Your task to perform on an android device: Play the last video I watched on Youtube Image 0: 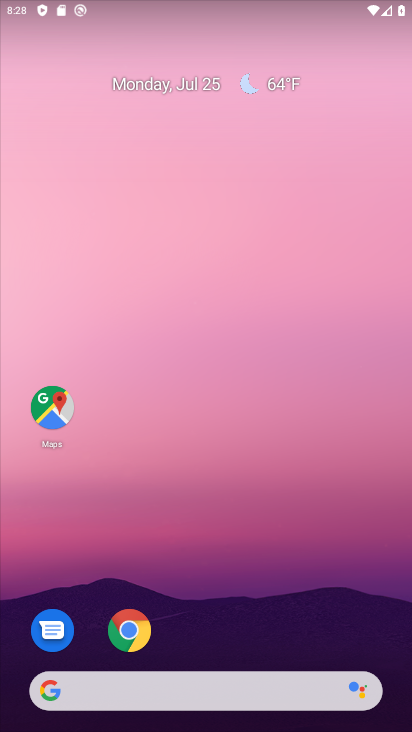
Step 0: drag from (379, 631) to (323, 131)
Your task to perform on an android device: Play the last video I watched on Youtube Image 1: 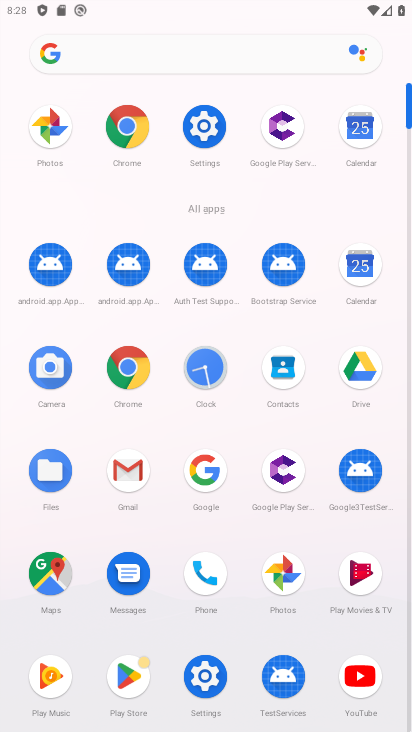
Step 1: click (358, 673)
Your task to perform on an android device: Play the last video I watched on Youtube Image 2: 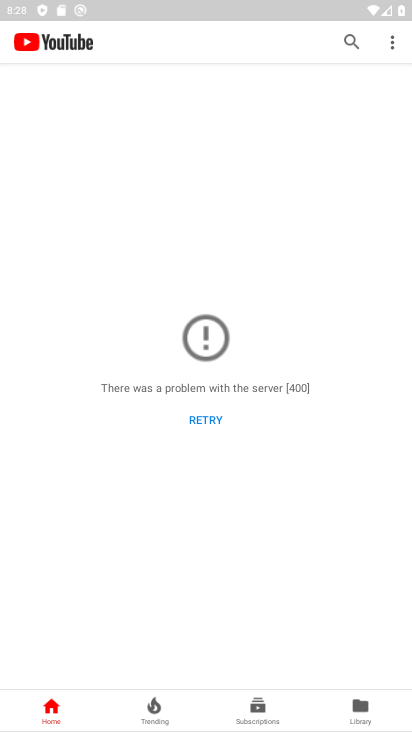
Step 2: click (361, 705)
Your task to perform on an android device: Play the last video I watched on Youtube Image 3: 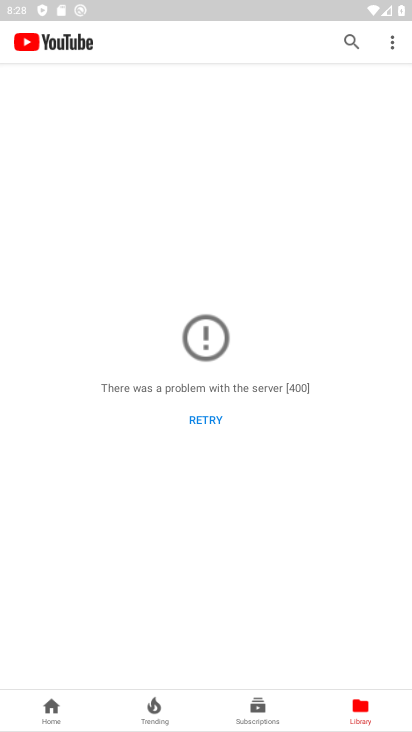
Step 3: click (205, 417)
Your task to perform on an android device: Play the last video I watched on Youtube Image 4: 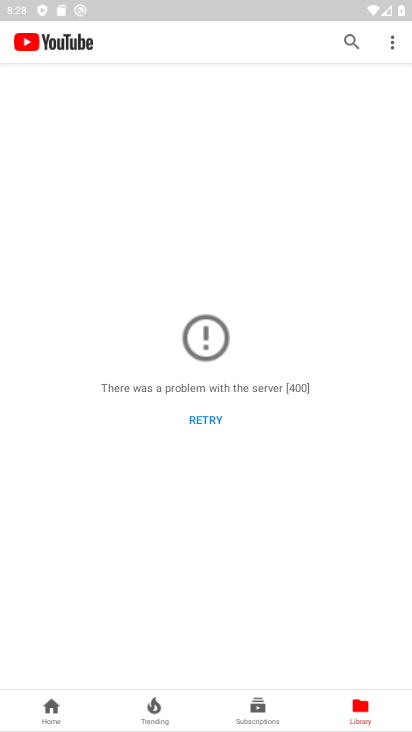
Step 4: task complete